Your task to perform on an android device: open a bookmark in the chrome app Image 0: 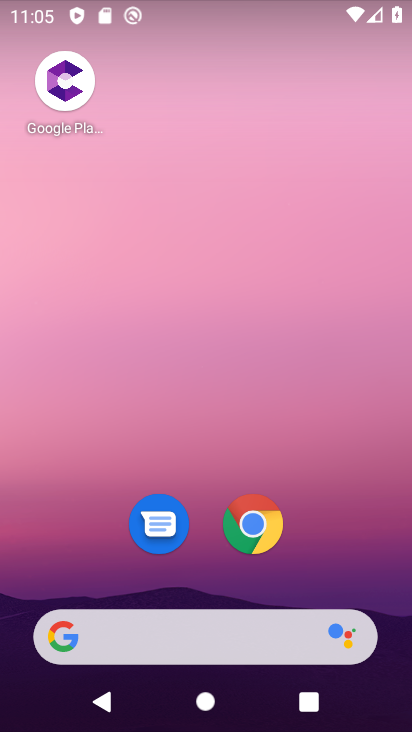
Step 0: click (268, 526)
Your task to perform on an android device: open a bookmark in the chrome app Image 1: 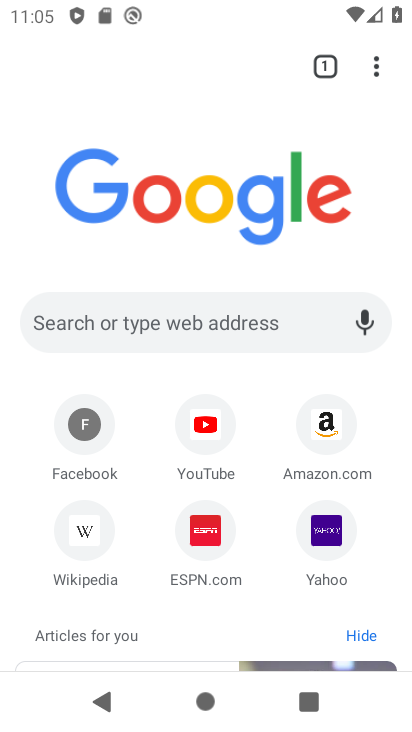
Step 1: click (377, 65)
Your task to perform on an android device: open a bookmark in the chrome app Image 2: 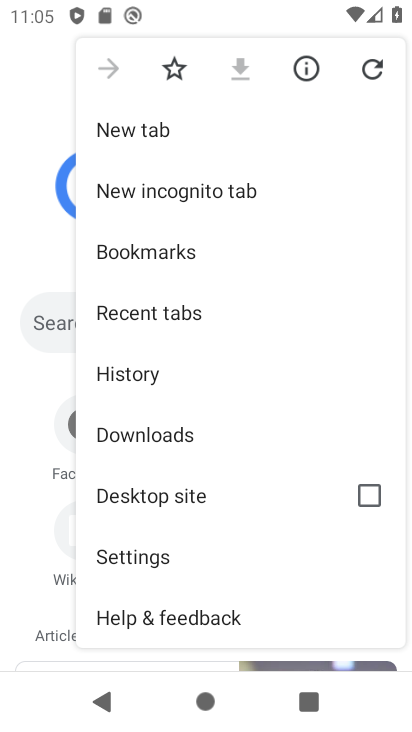
Step 2: click (207, 244)
Your task to perform on an android device: open a bookmark in the chrome app Image 3: 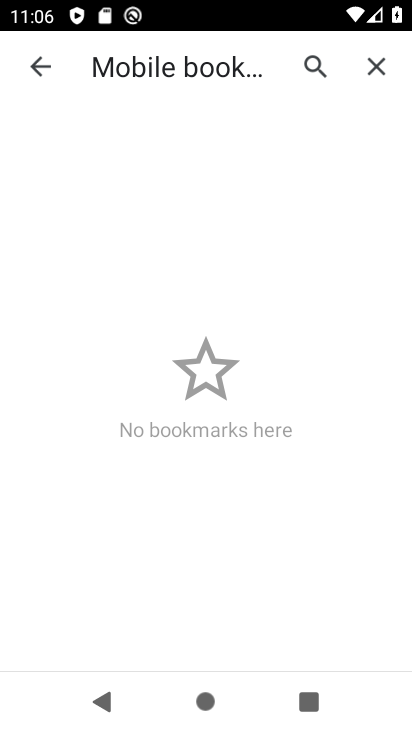
Step 3: task complete